Your task to perform on an android device: toggle wifi Image 0: 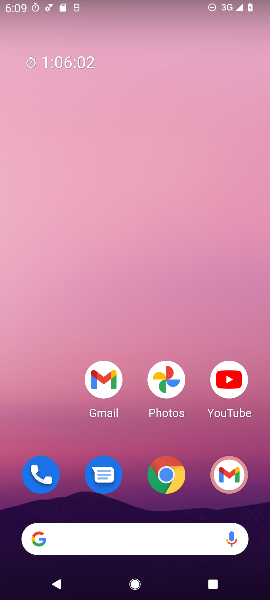
Step 0: press home button
Your task to perform on an android device: toggle wifi Image 1: 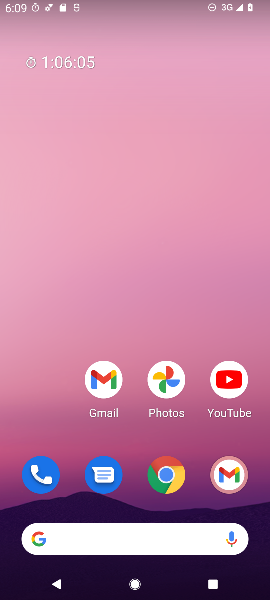
Step 1: drag from (69, 449) to (72, 265)
Your task to perform on an android device: toggle wifi Image 2: 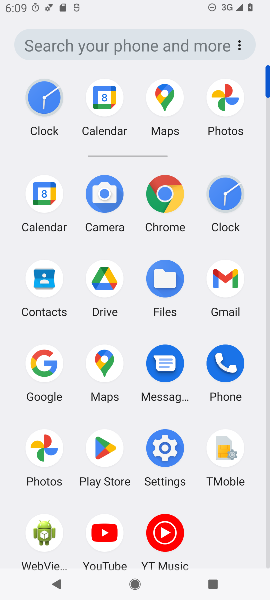
Step 2: click (162, 453)
Your task to perform on an android device: toggle wifi Image 3: 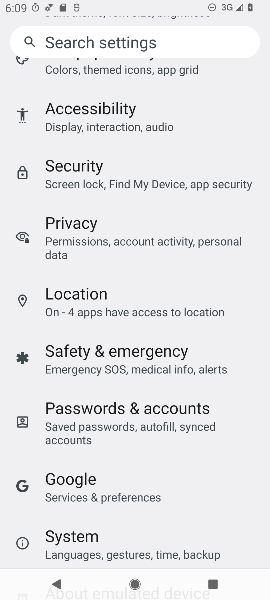
Step 3: drag from (247, 252) to (247, 324)
Your task to perform on an android device: toggle wifi Image 4: 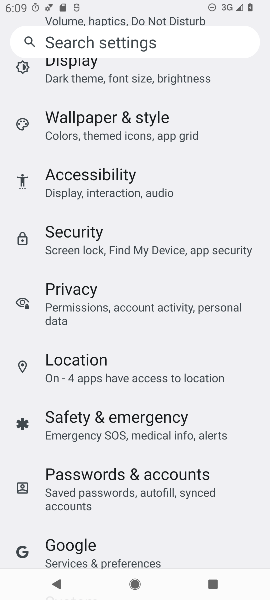
Step 4: drag from (247, 192) to (246, 294)
Your task to perform on an android device: toggle wifi Image 5: 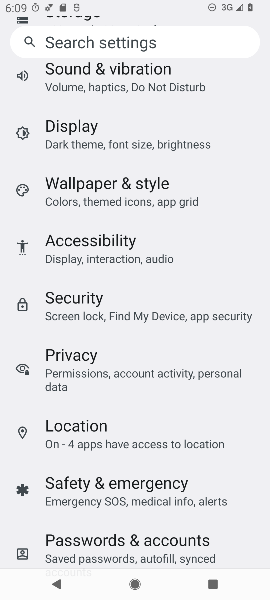
Step 5: drag from (231, 133) to (235, 243)
Your task to perform on an android device: toggle wifi Image 6: 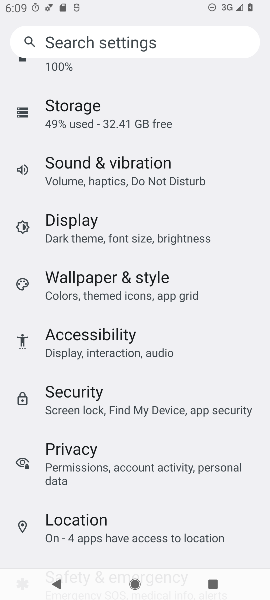
Step 6: drag from (234, 102) to (235, 203)
Your task to perform on an android device: toggle wifi Image 7: 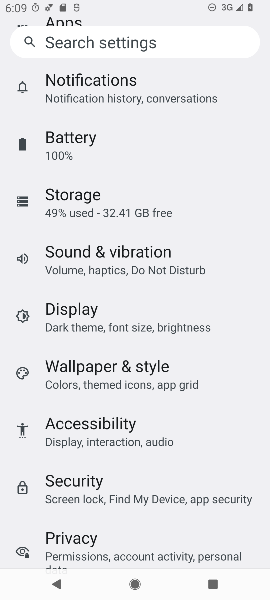
Step 7: drag from (238, 80) to (240, 234)
Your task to perform on an android device: toggle wifi Image 8: 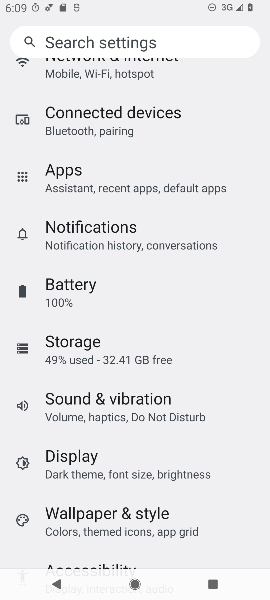
Step 8: drag from (233, 85) to (238, 223)
Your task to perform on an android device: toggle wifi Image 9: 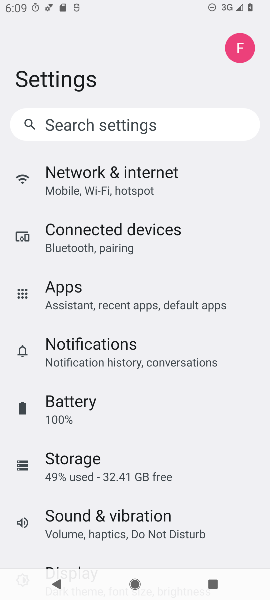
Step 9: click (132, 190)
Your task to perform on an android device: toggle wifi Image 10: 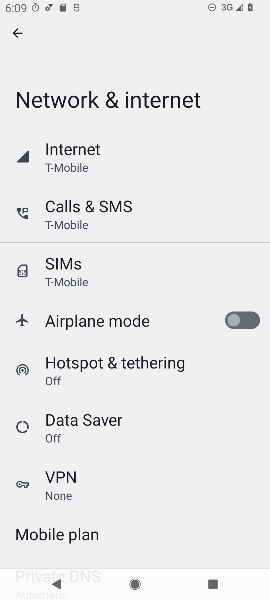
Step 10: click (75, 160)
Your task to perform on an android device: toggle wifi Image 11: 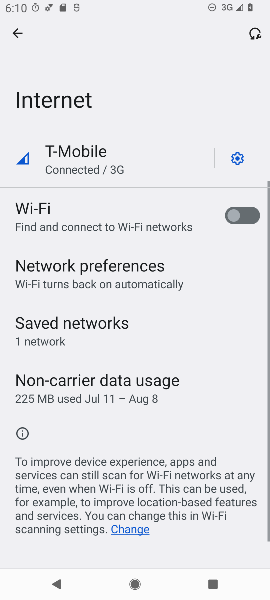
Step 11: click (241, 212)
Your task to perform on an android device: toggle wifi Image 12: 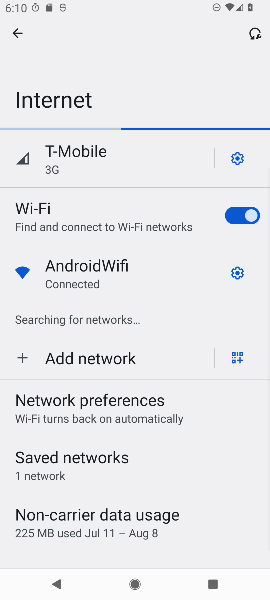
Step 12: task complete